Your task to perform on an android device: add a contact Image 0: 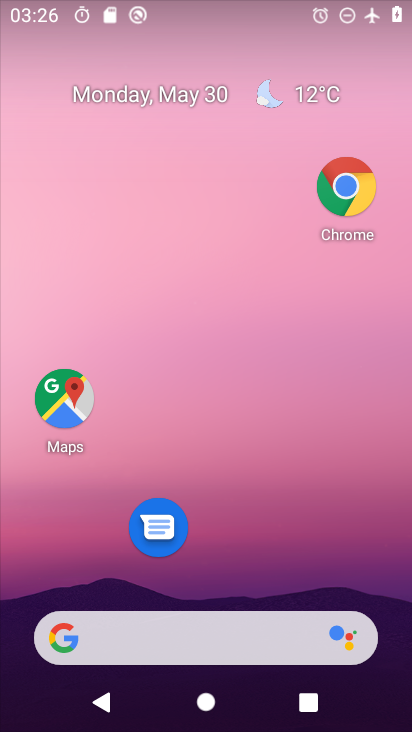
Step 0: drag from (182, 566) to (348, 95)
Your task to perform on an android device: add a contact Image 1: 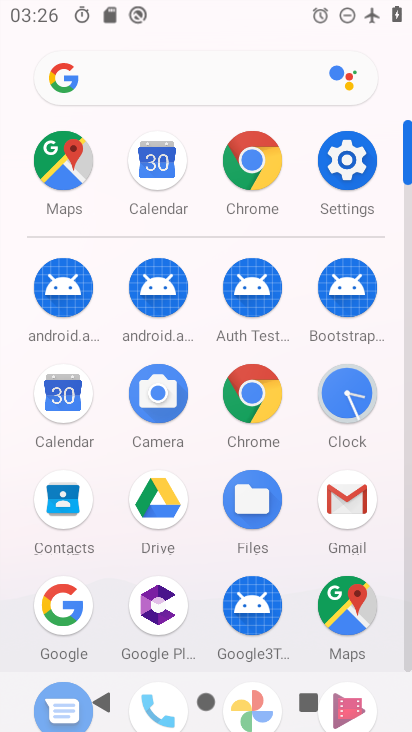
Step 1: click (55, 495)
Your task to perform on an android device: add a contact Image 2: 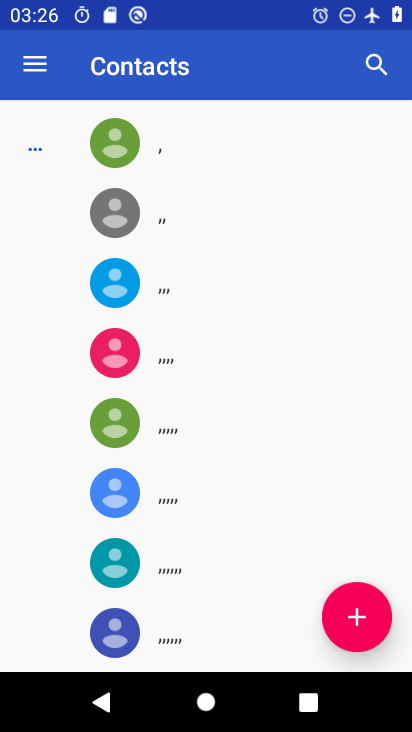
Step 2: click (356, 610)
Your task to perform on an android device: add a contact Image 3: 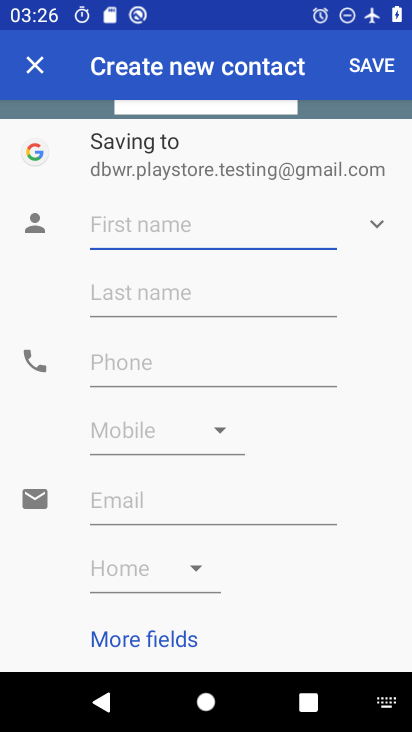
Step 3: type "a"
Your task to perform on an android device: add a contact Image 4: 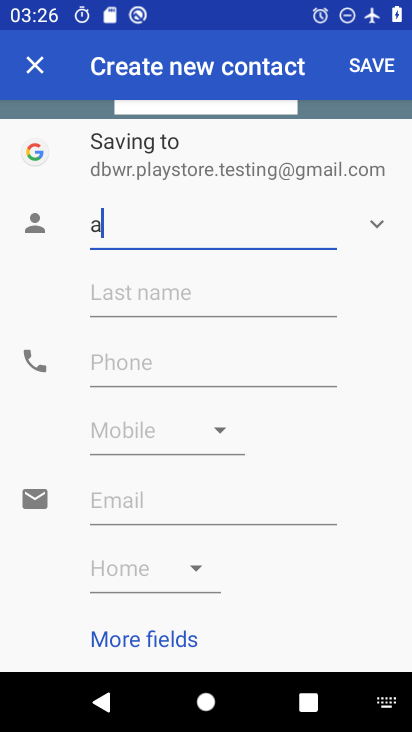
Step 4: type ""
Your task to perform on an android device: add a contact Image 5: 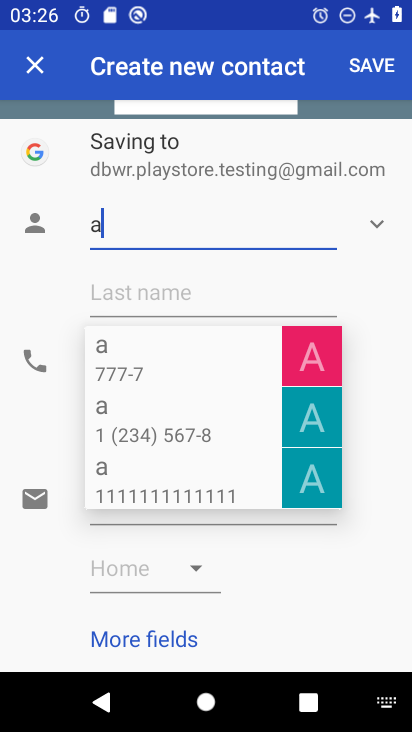
Step 5: click (179, 439)
Your task to perform on an android device: add a contact Image 6: 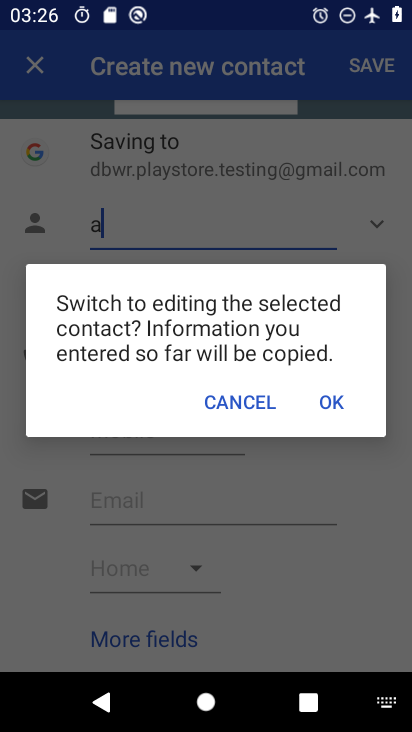
Step 6: click (321, 402)
Your task to perform on an android device: add a contact Image 7: 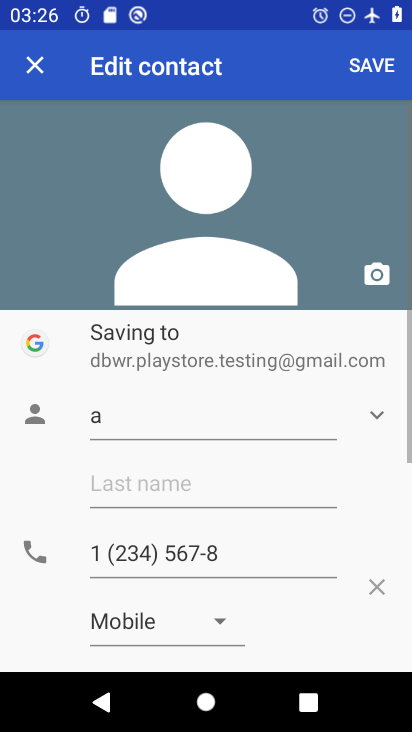
Step 7: click (362, 68)
Your task to perform on an android device: add a contact Image 8: 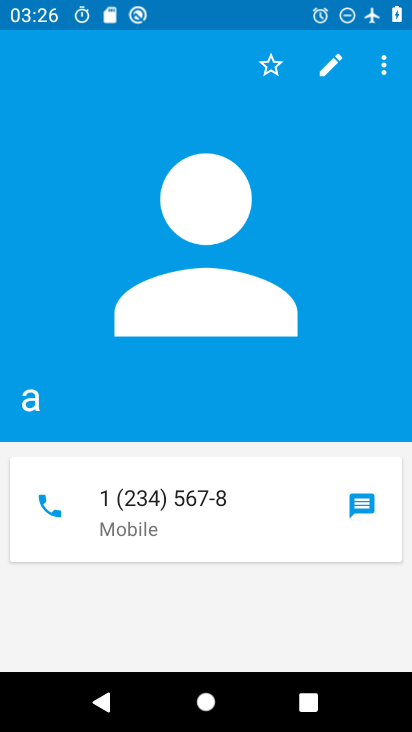
Step 8: task complete